Your task to perform on an android device: Go to CNN.com Image 0: 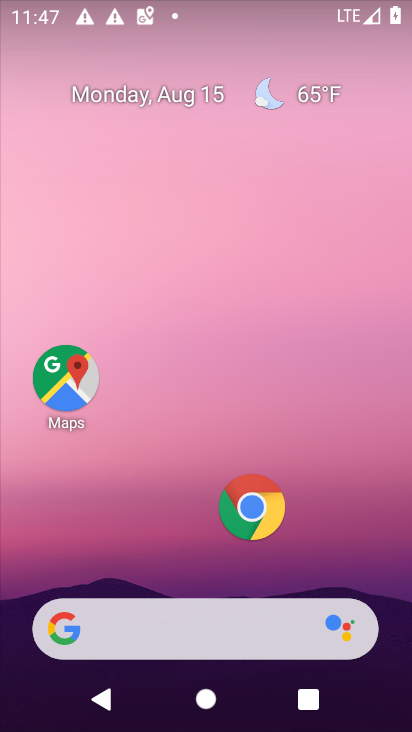
Step 0: click (252, 498)
Your task to perform on an android device: Go to CNN.com Image 1: 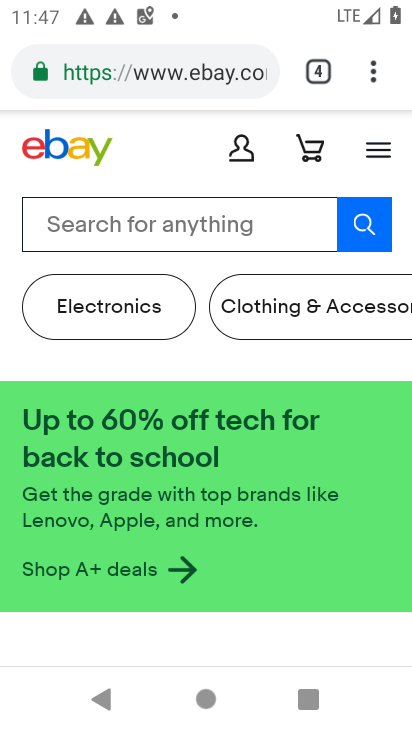
Step 1: click (374, 57)
Your task to perform on an android device: Go to CNN.com Image 2: 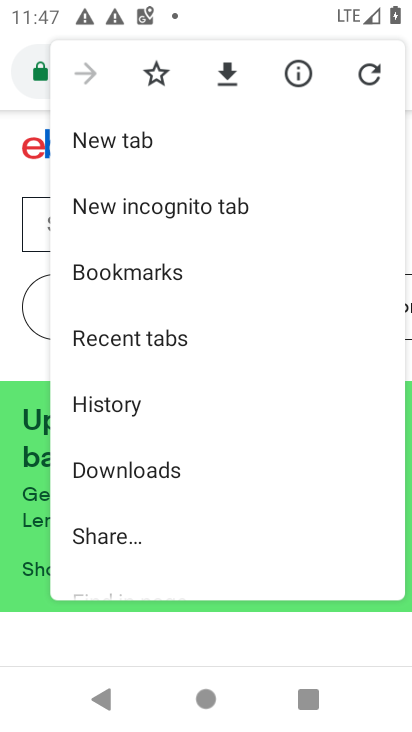
Step 2: click (132, 145)
Your task to perform on an android device: Go to CNN.com Image 3: 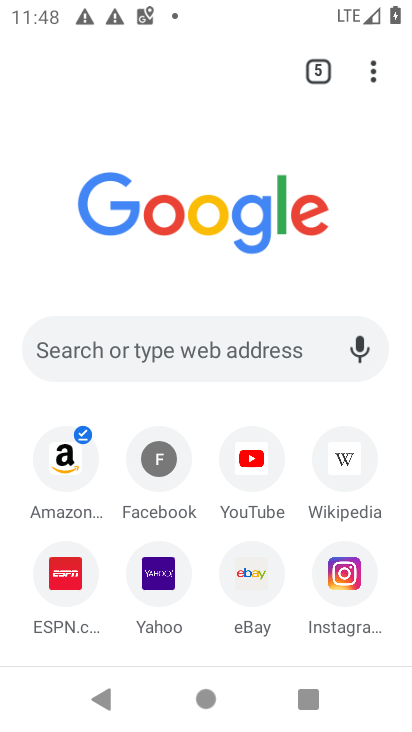
Step 3: click (192, 332)
Your task to perform on an android device: Go to CNN.com Image 4: 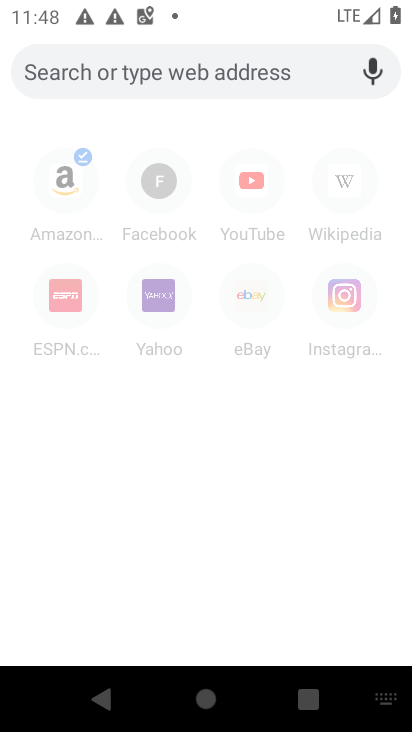
Step 4: type "cnn.com"
Your task to perform on an android device: Go to CNN.com Image 5: 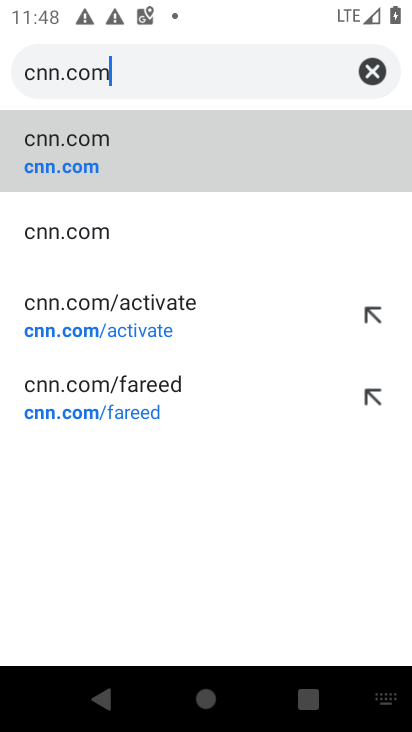
Step 5: click (45, 142)
Your task to perform on an android device: Go to CNN.com Image 6: 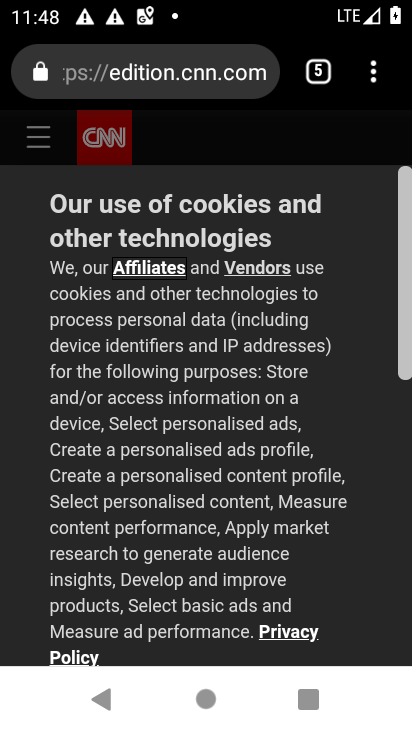
Step 6: drag from (270, 481) to (272, 213)
Your task to perform on an android device: Go to CNN.com Image 7: 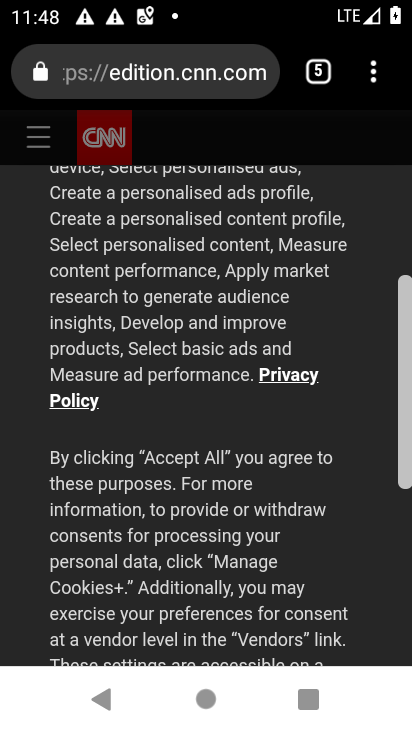
Step 7: drag from (238, 581) to (242, 139)
Your task to perform on an android device: Go to CNN.com Image 8: 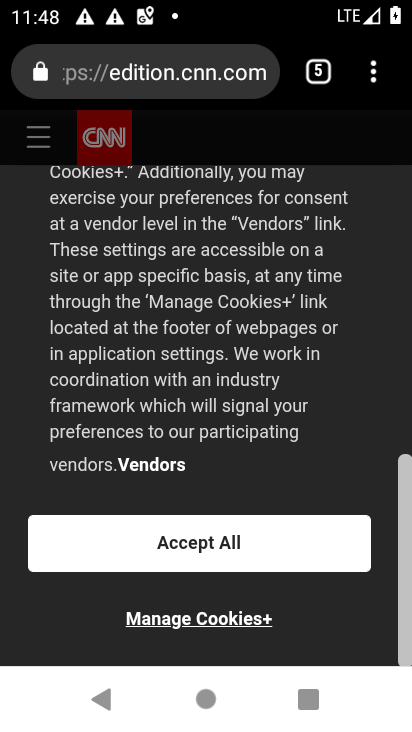
Step 8: click (197, 549)
Your task to perform on an android device: Go to CNN.com Image 9: 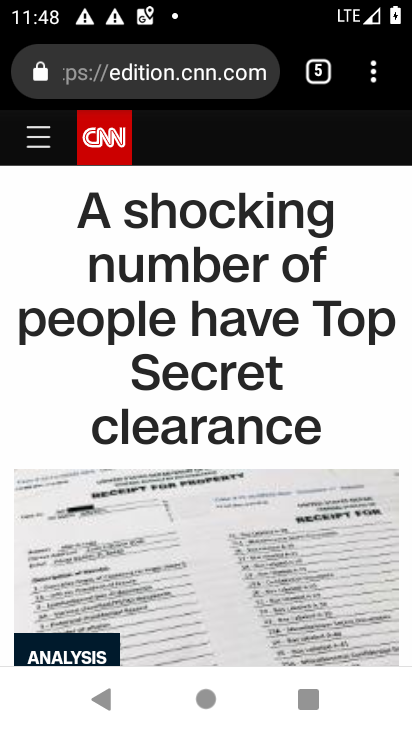
Step 9: task complete